Your task to perform on an android device: Open network settings Image 0: 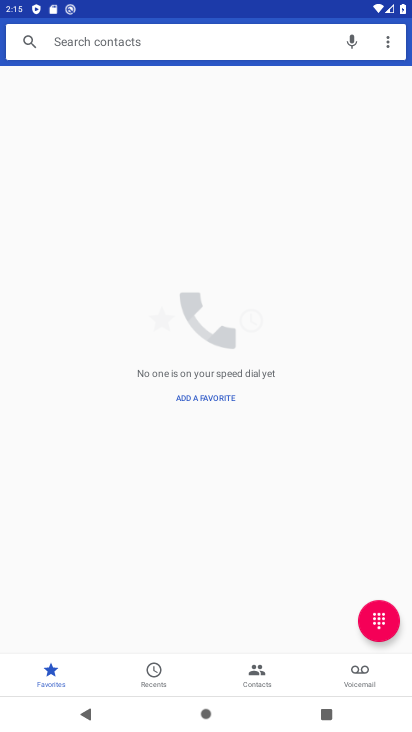
Step 0: press home button
Your task to perform on an android device: Open network settings Image 1: 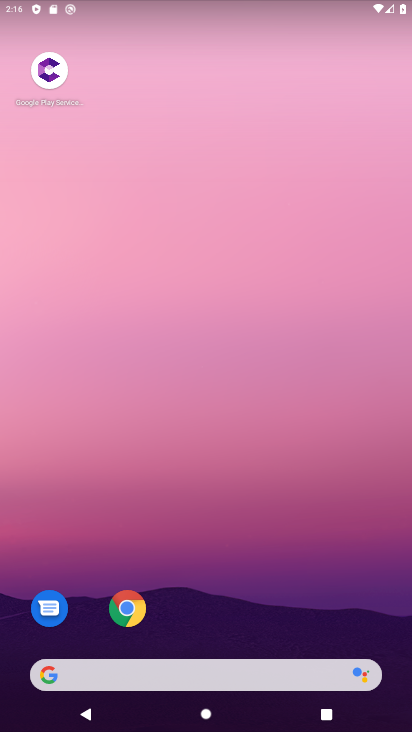
Step 1: drag from (248, 588) to (260, 211)
Your task to perform on an android device: Open network settings Image 2: 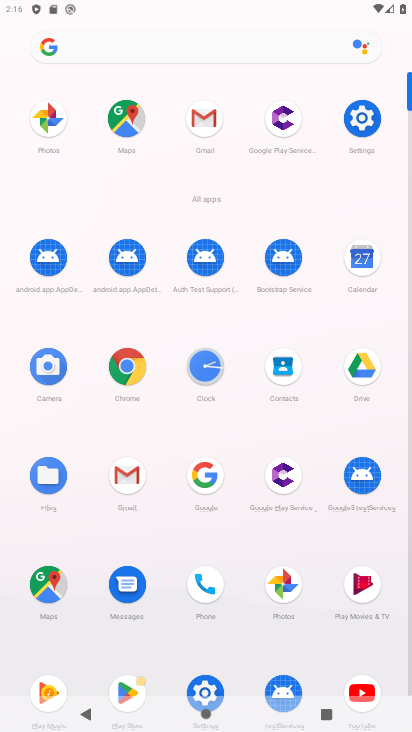
Step 2: click (368, 121)
Your task to perform on an android device: Open network settings Image 3: 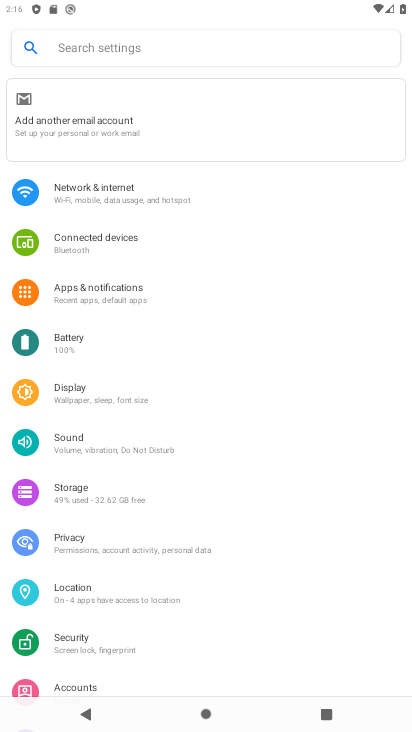
Step 3: click (62, 190)
Your task to perform on an android device: Open network settings Image 4: 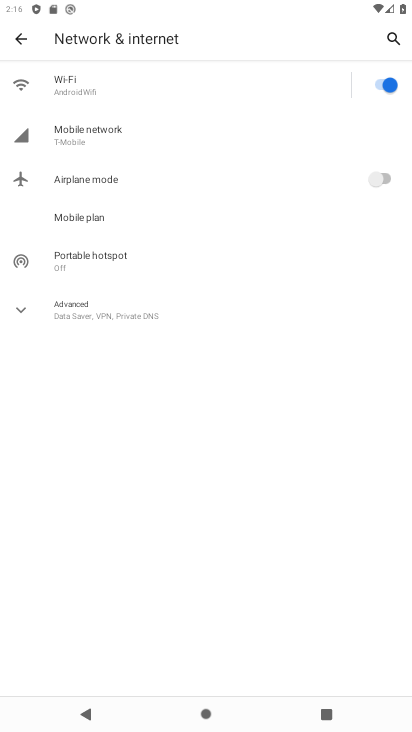
Step 4: task complete